Your task to perform on an android device: stop showing notifications on the lock screen Image 0: 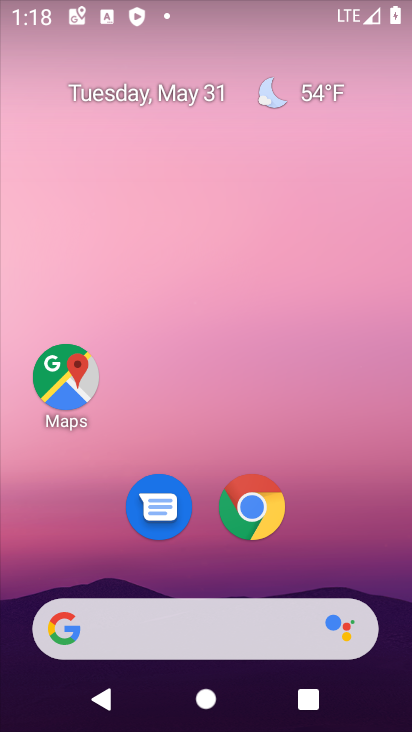
Step 0: drag from (381, 611) to (294, 57)
Your task to perform on an android device: stop showing notifications on the lock screen Image 1: 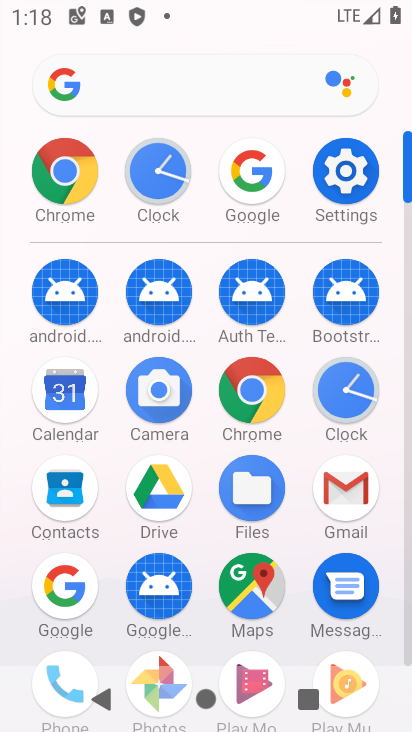
Step 1: click (345, 179)
Your task to perform on an android device: stop showing notifications on the lock screen Image 2: 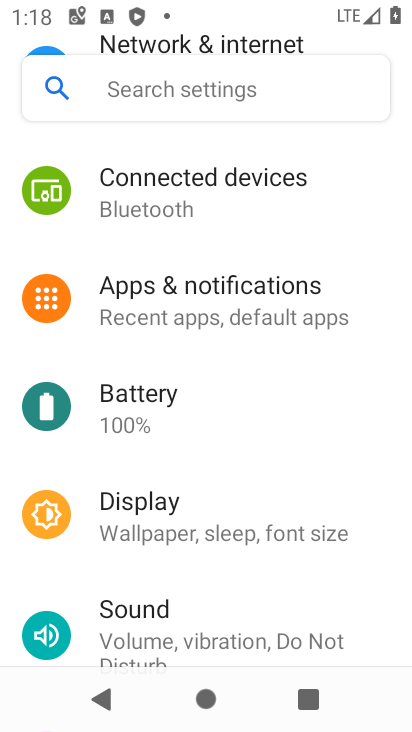
Step 2: click (238, 333)
Your task to perform on an android device: stop showing notifications on the lock screen Image 3: 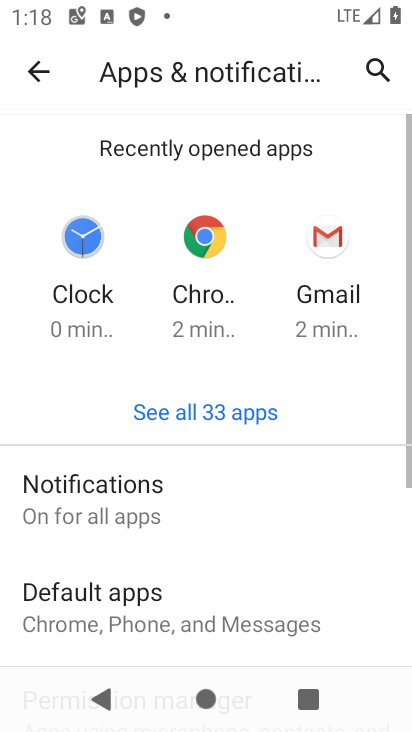
Step 3: click (98, 508)
Your task to perform on an android device: stop showing notifications on the lock screen Image 4: 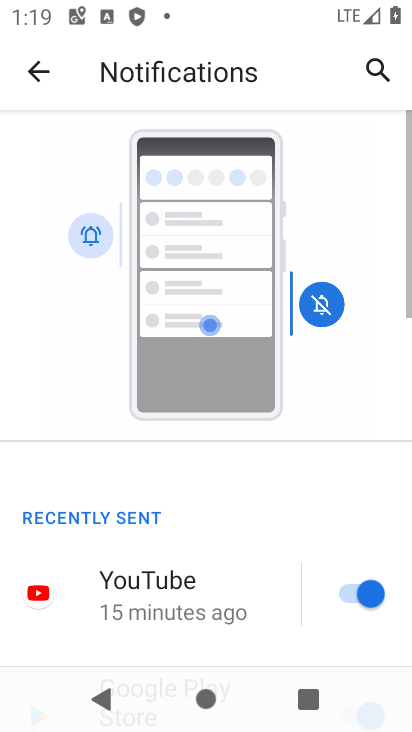
Step 4: drag from (164, 562) to (183, 97)
Your task to perform on an android device: stop showing notifications on the lock screen Image 5: 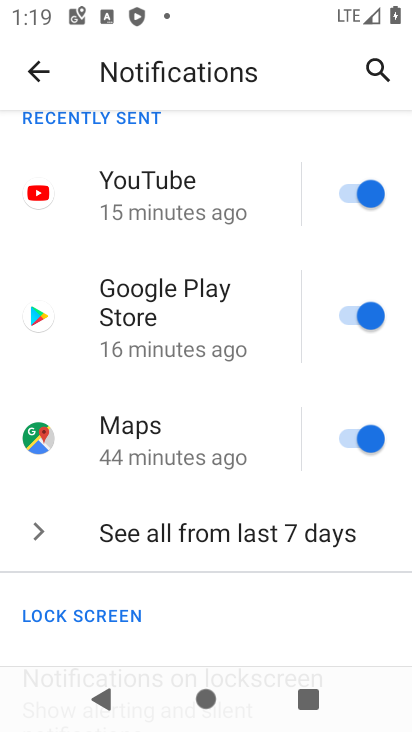
Step 5: drag from (203, 570) to (179, 191)
Your task to perform on an android device: stop showing notifications on the lock screen Image 6: 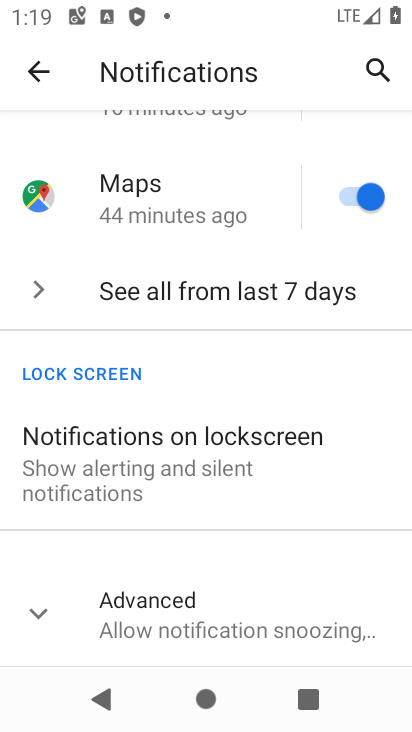
Step 6: click (220, 472)
Your task to perform on an android device: stop showing notifications on the lock screen Image 7: 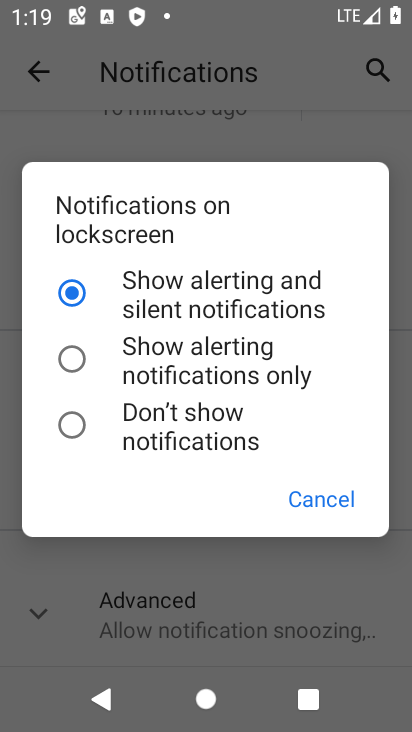
Step 7: click (77, 422)
Your task to perform on an android device: stop showing notifications on the lock screen Image 8: 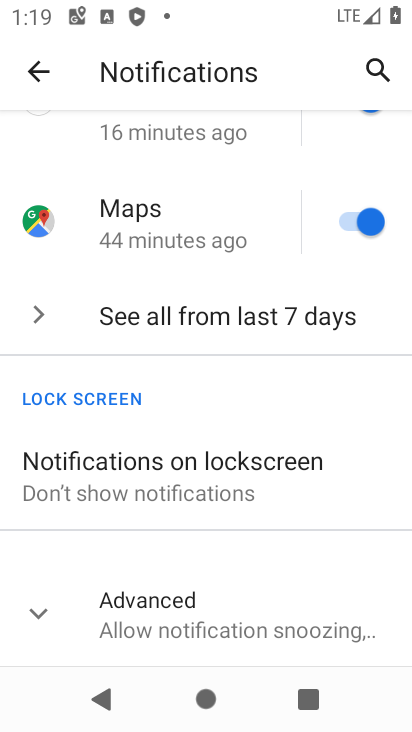
Step 8: task complete